Your task to perform on an android device: remove spam from my inbox in the gmail app Image 0: 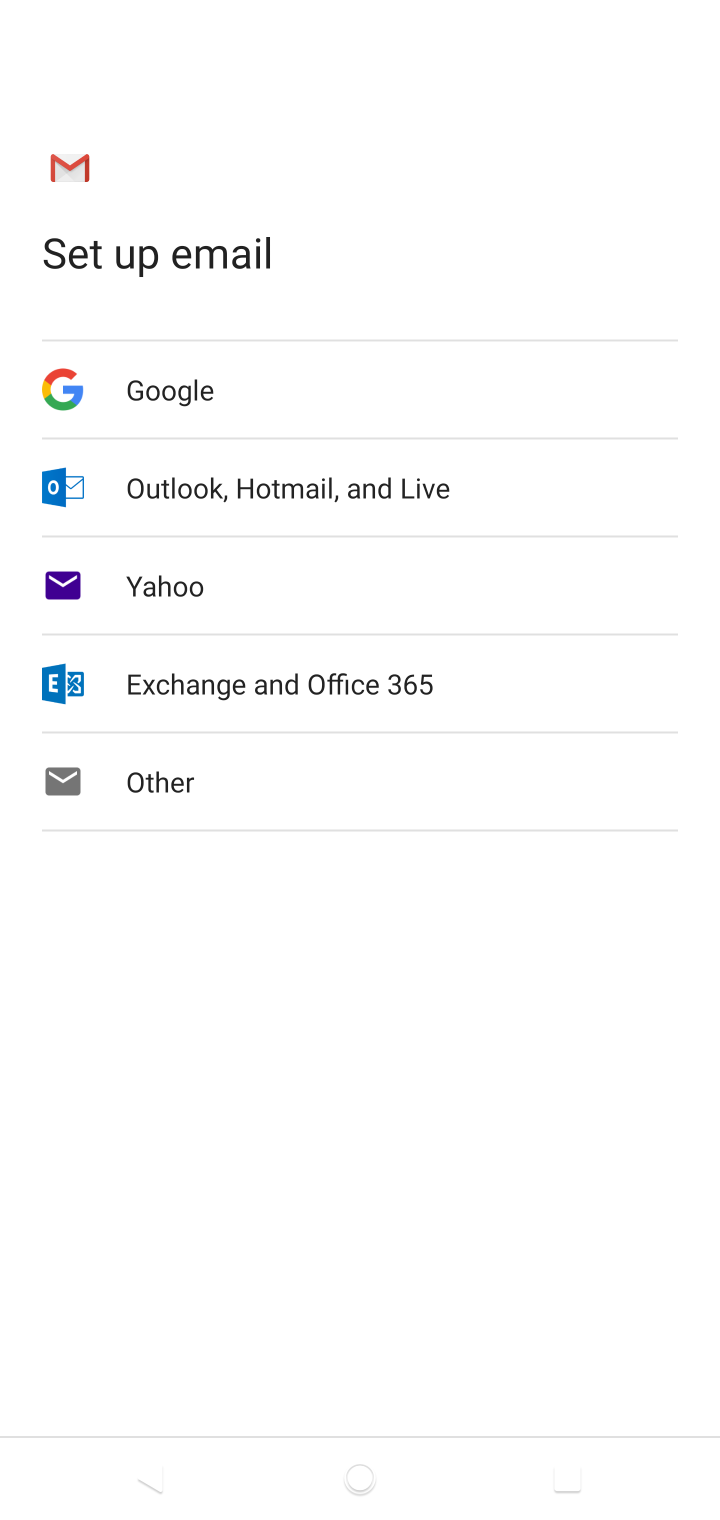
Step 0: click (36, 89)
Your task to perform on an android device: remove spam from my inbox in the gmail app Image 1: 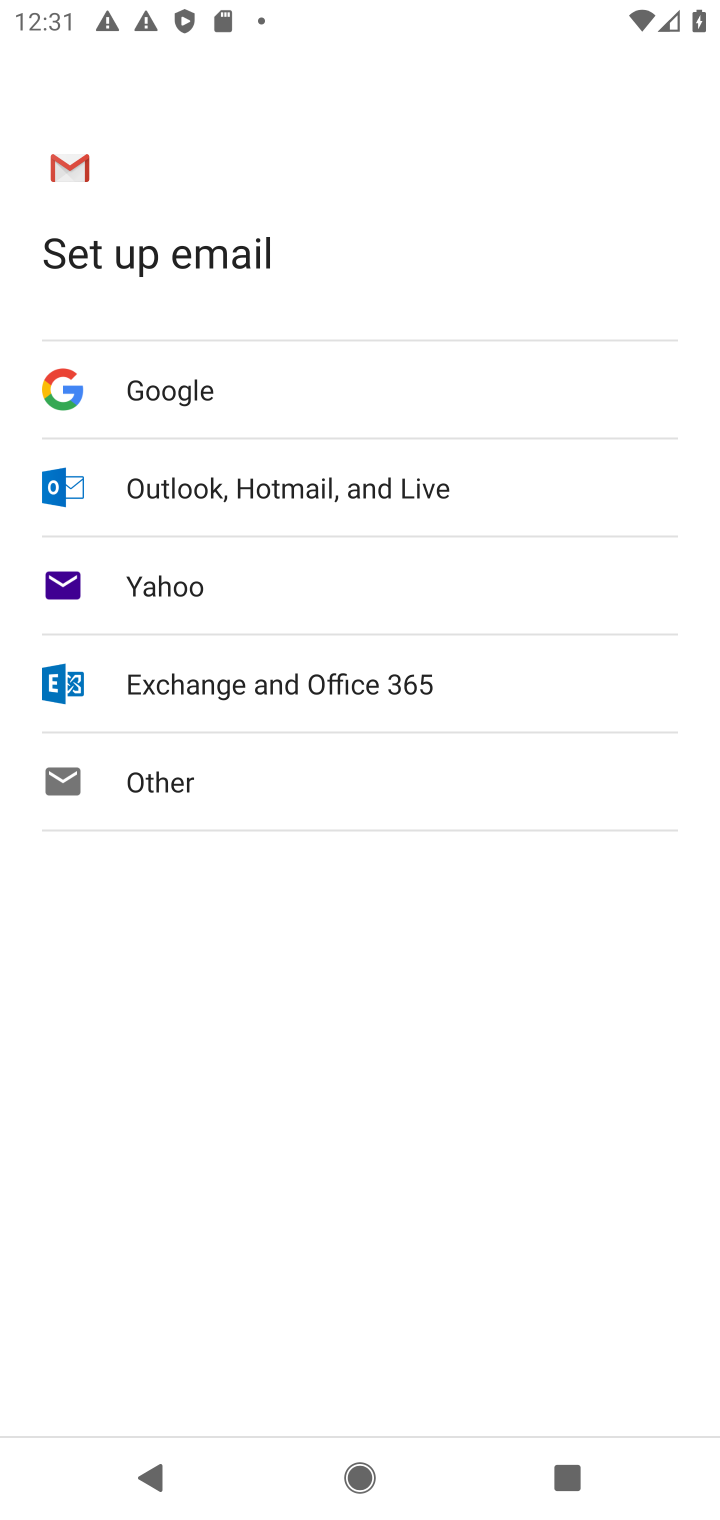
Step 1: press home button
Your task to perform on an android device: remove spam from my inbox in the gmail app Image 2: 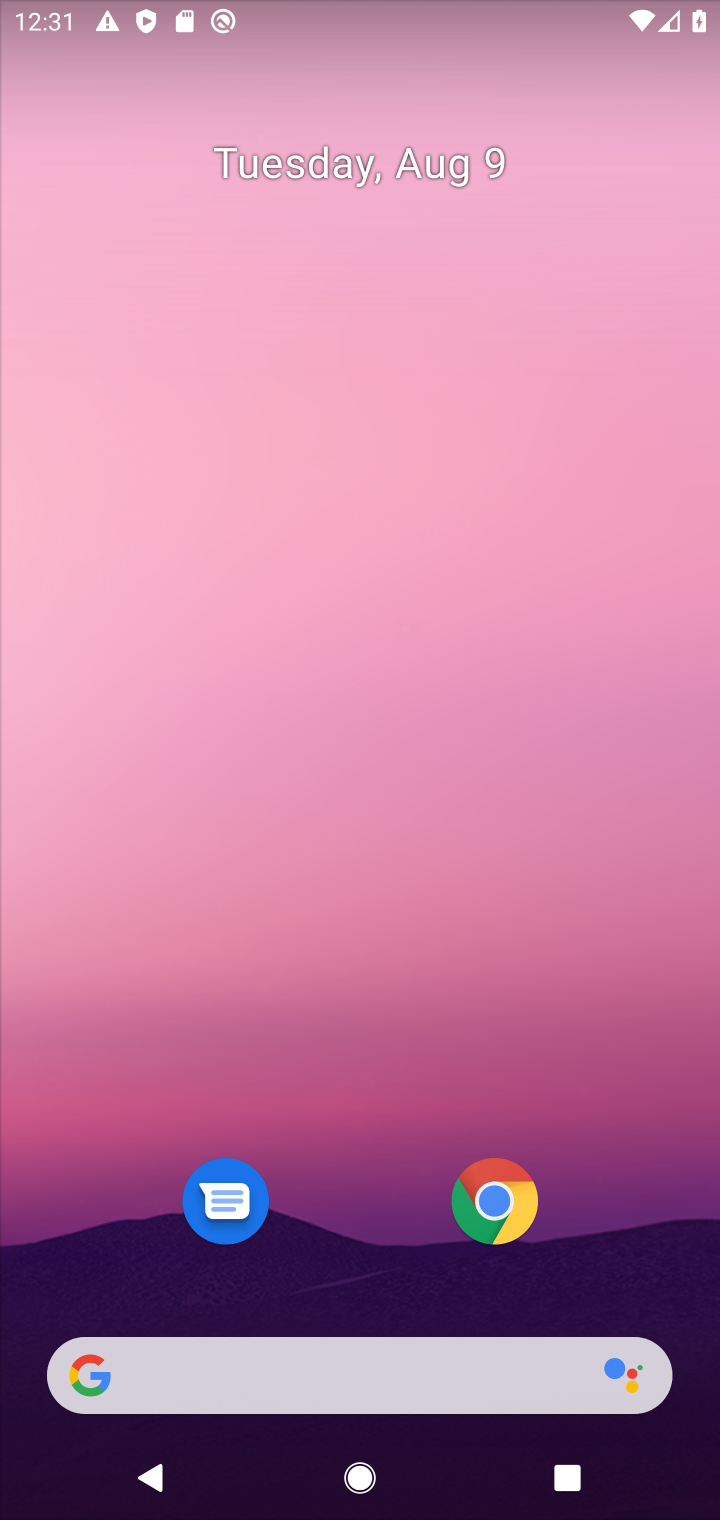
Step 2: drag from (279, 444) to (279, 234)
Your task to perform on an android device: remove spam from my inbox in the gmail app Image 3: 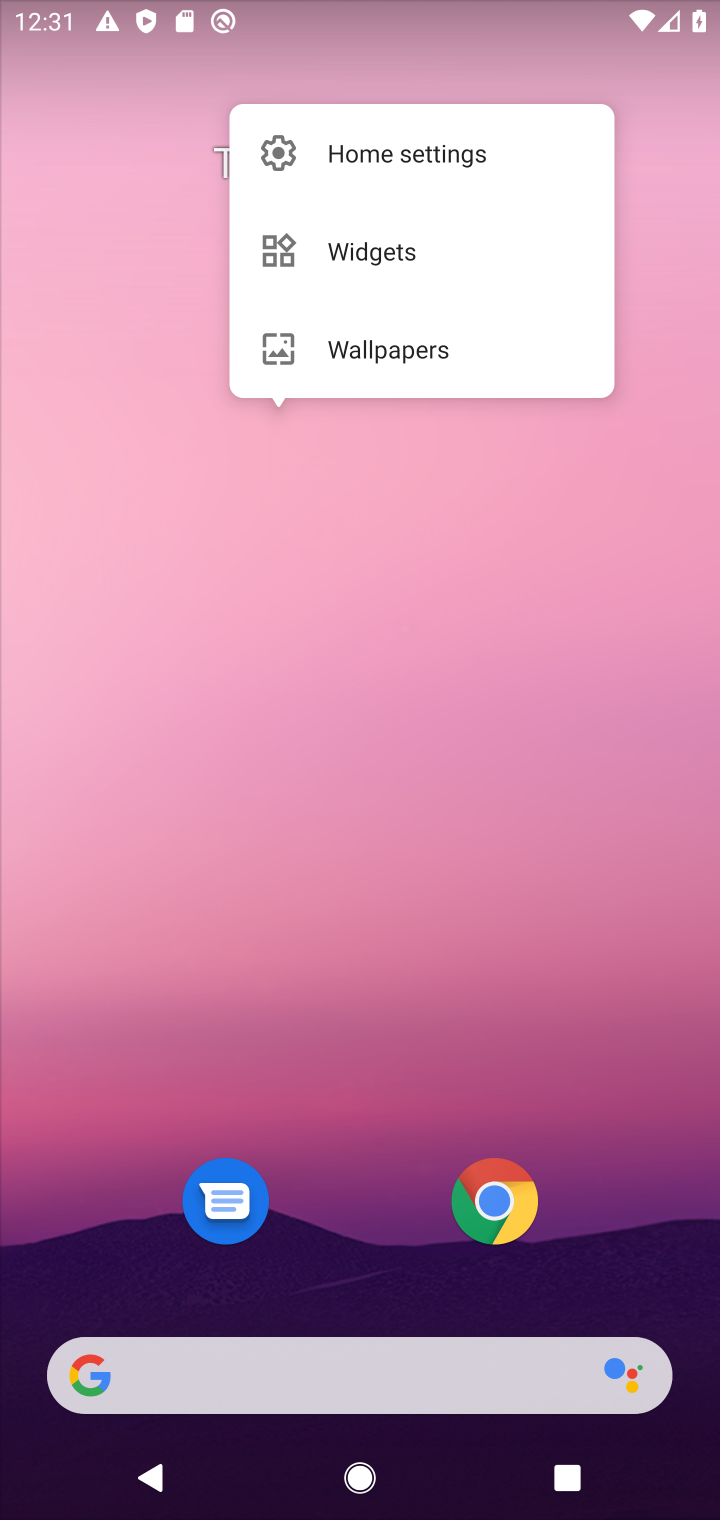
Step 3: drag from (373, 1255) to (367, 407)
Your task to perform on an android device: remove spam from my inbox in the gmail app Image 4: 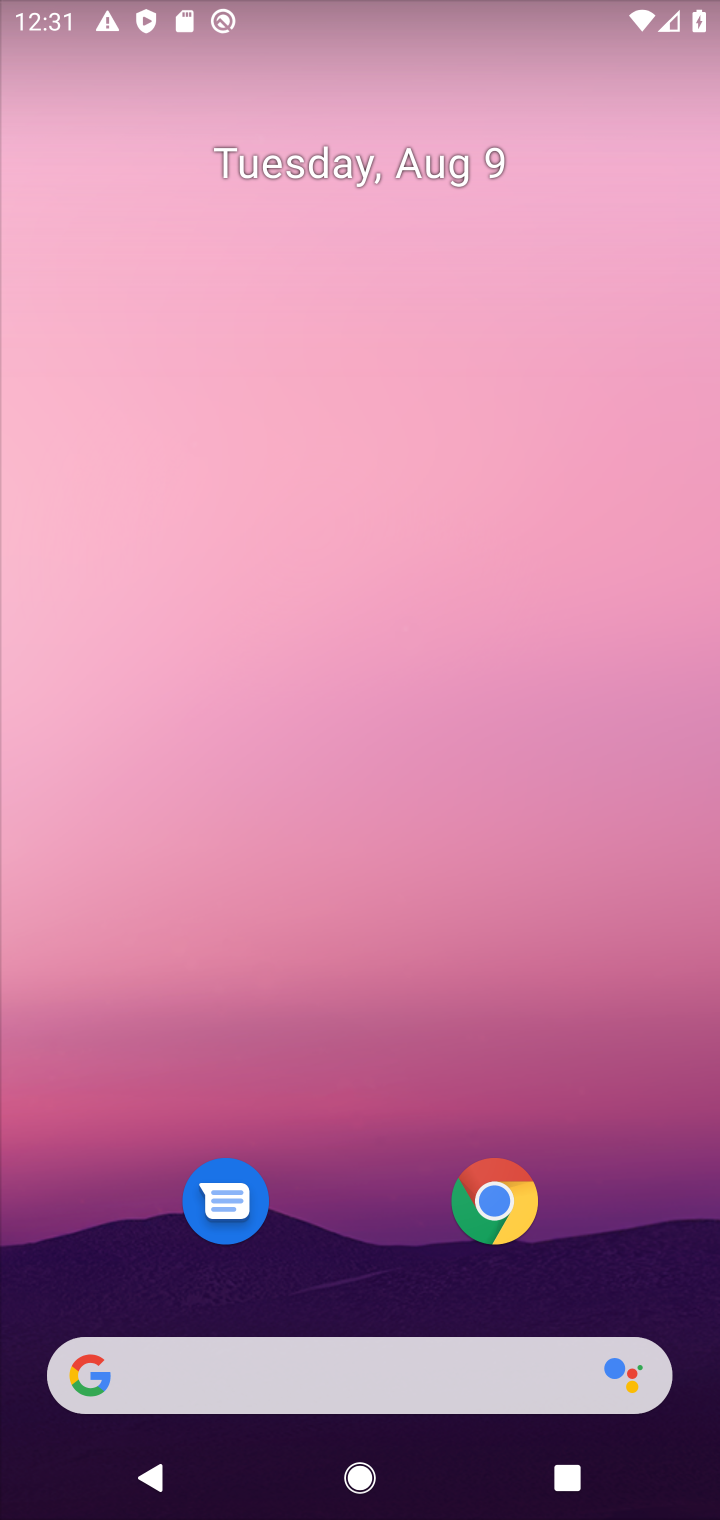
Step 4: drag from (368, 1300) to (406, 526)
Your task to perform on an android device: remove spam from my inbox in the gmail app Image 5: 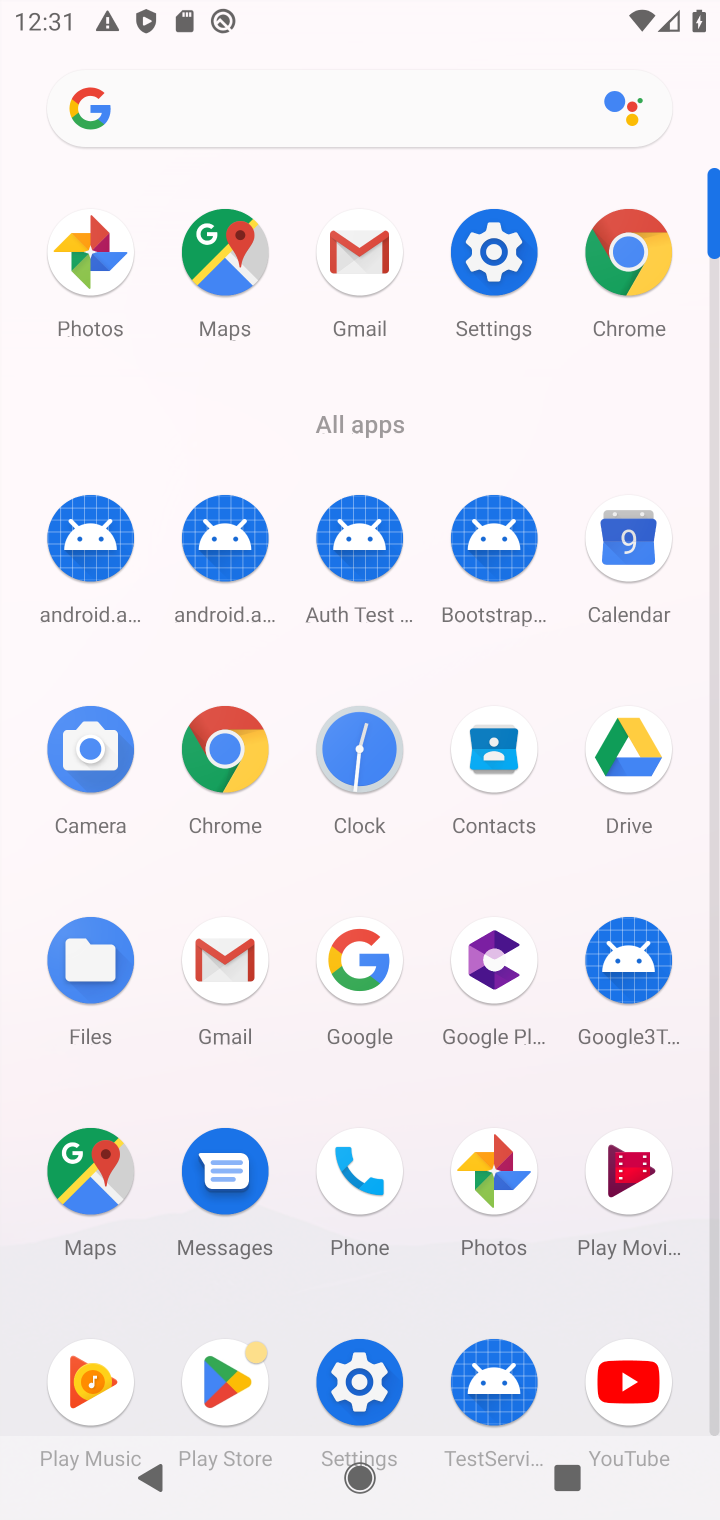
Step 5: click (234, 975)
Your task to perform on an android device: remove spam from my inbox in the gmail app Image 6: 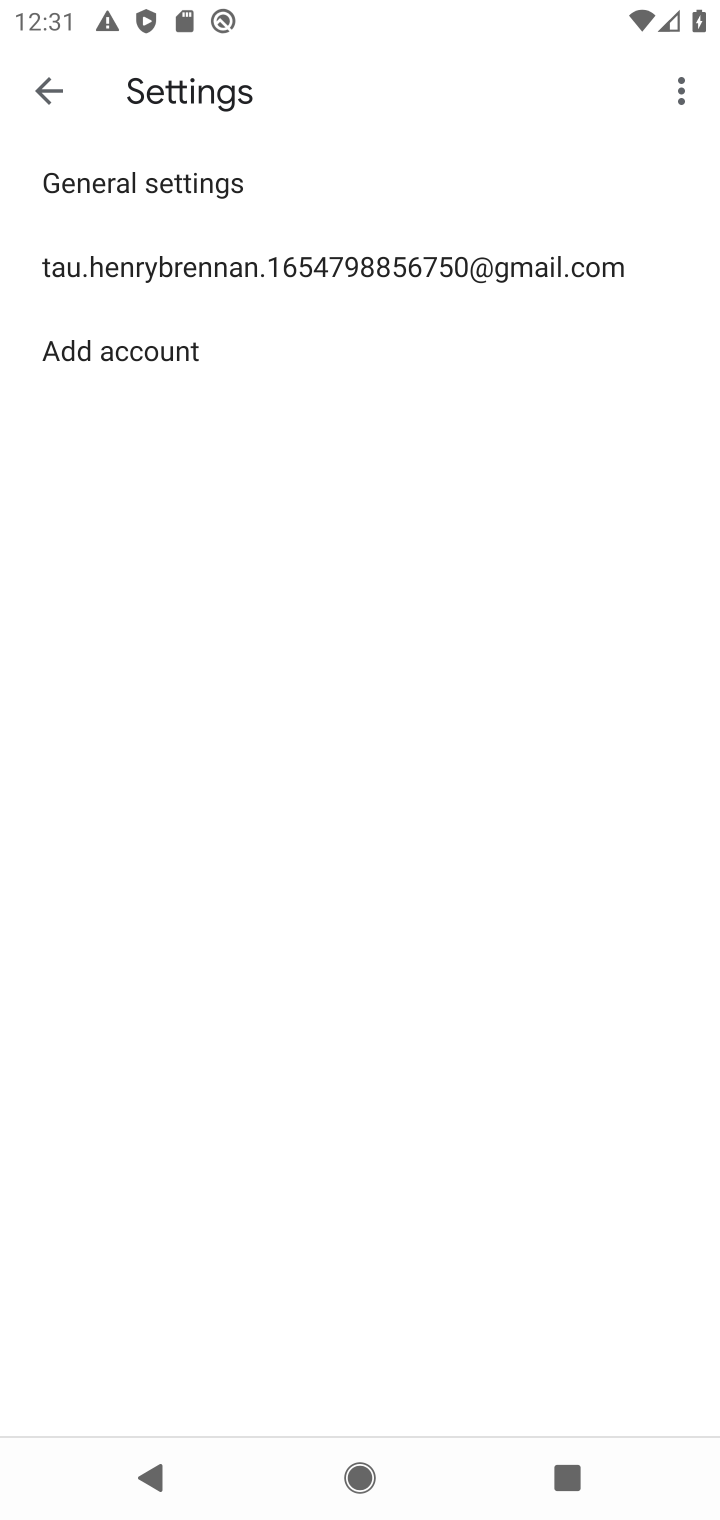
Step 6: click (43, 99)
Your task to perform on an android device: remove spam from my inbox in the gmail app Image 7: 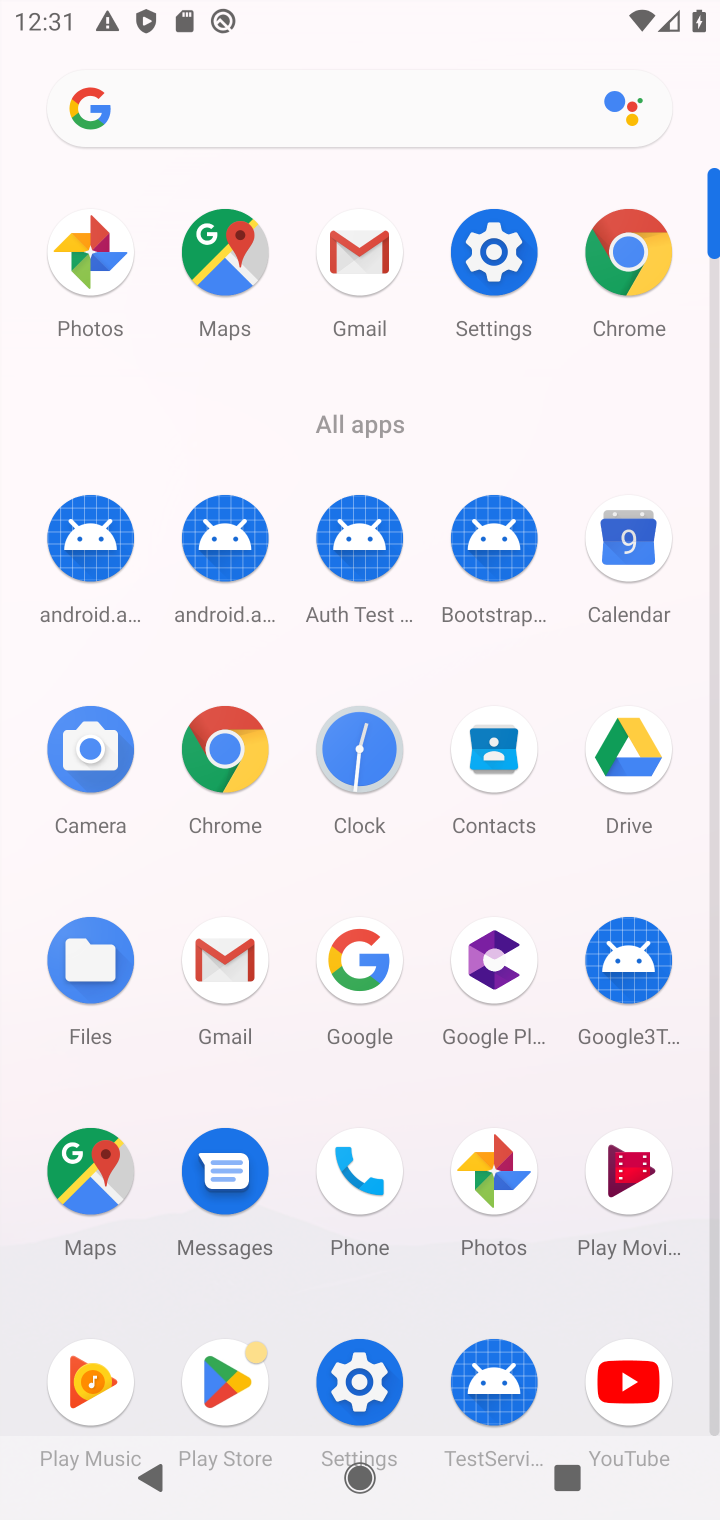
Step 7: click (206, 991)
Your task to perform on an android device: remove spam from my inbox in the gmail app Image 8: 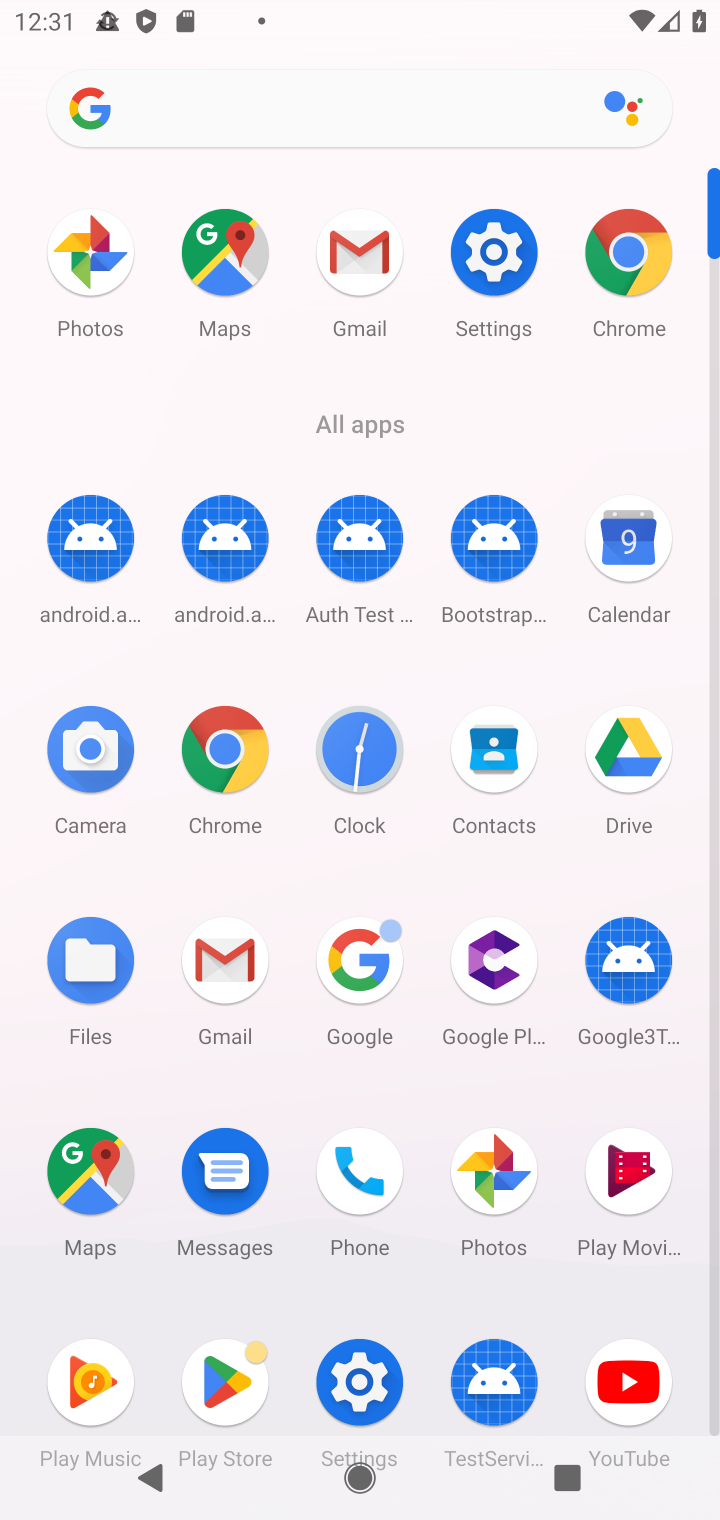
Step 8: click (217, 999)
Your task to perform on an android device: remove spam from my inbox in the gmail app Image 9: 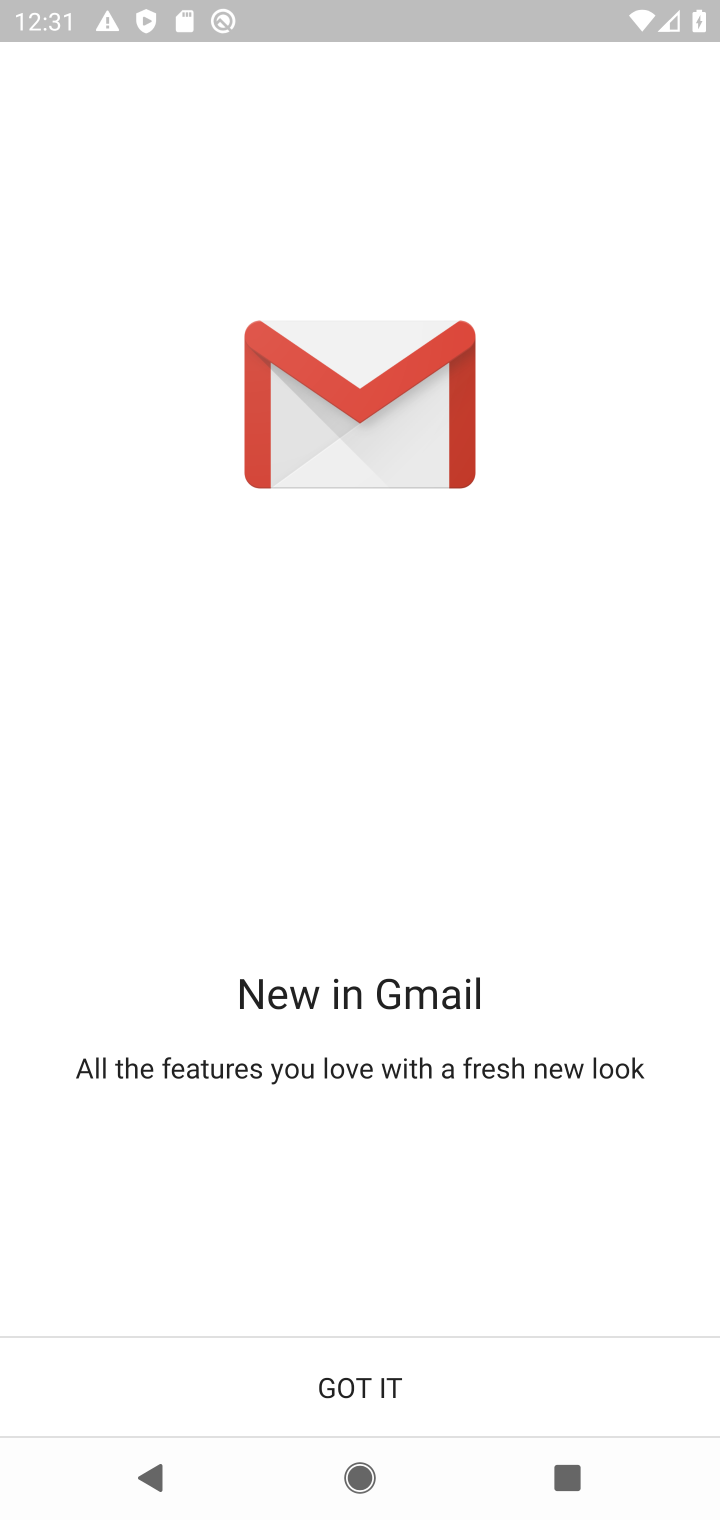
Step 9: click (442, 1375)
Your task to perform on an android device: remove spam from my inbox in the gmail app Image 10: 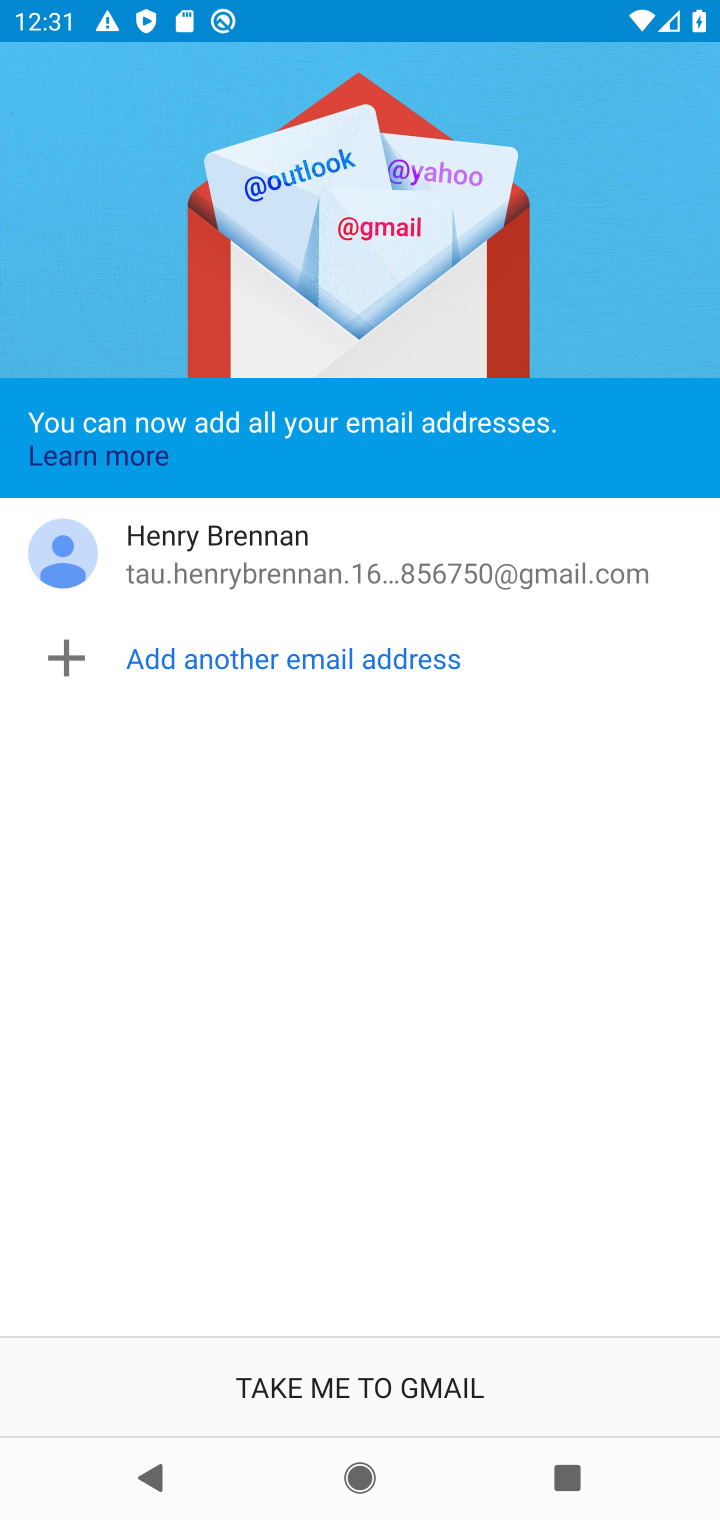
Step 10: click (433, 1377)
Your task to perform on an android device: remove spam from my inbox in the gmail app Image 11: 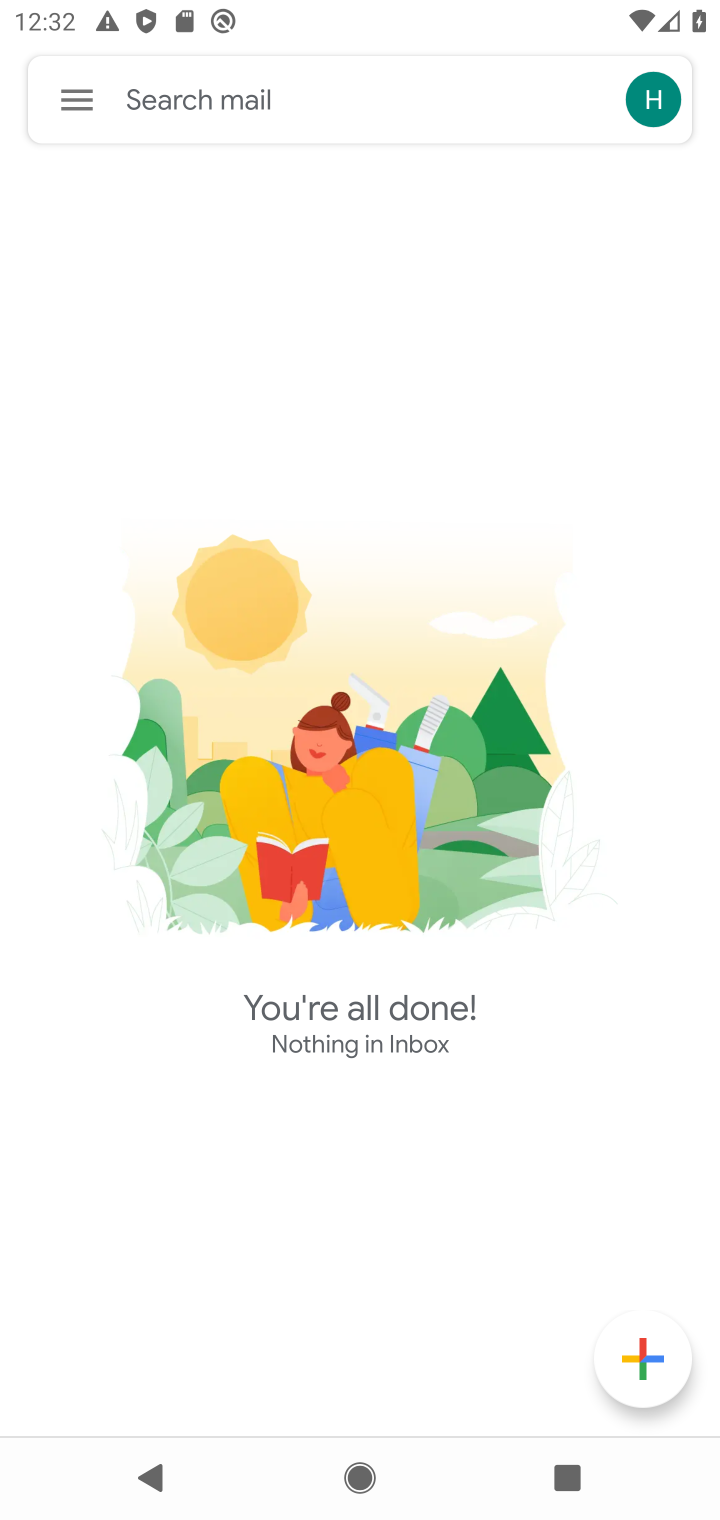
Step 11: click (65, 81)
Your task to perform on an android device: remove spam from my inbox in the gmail app Image 12: 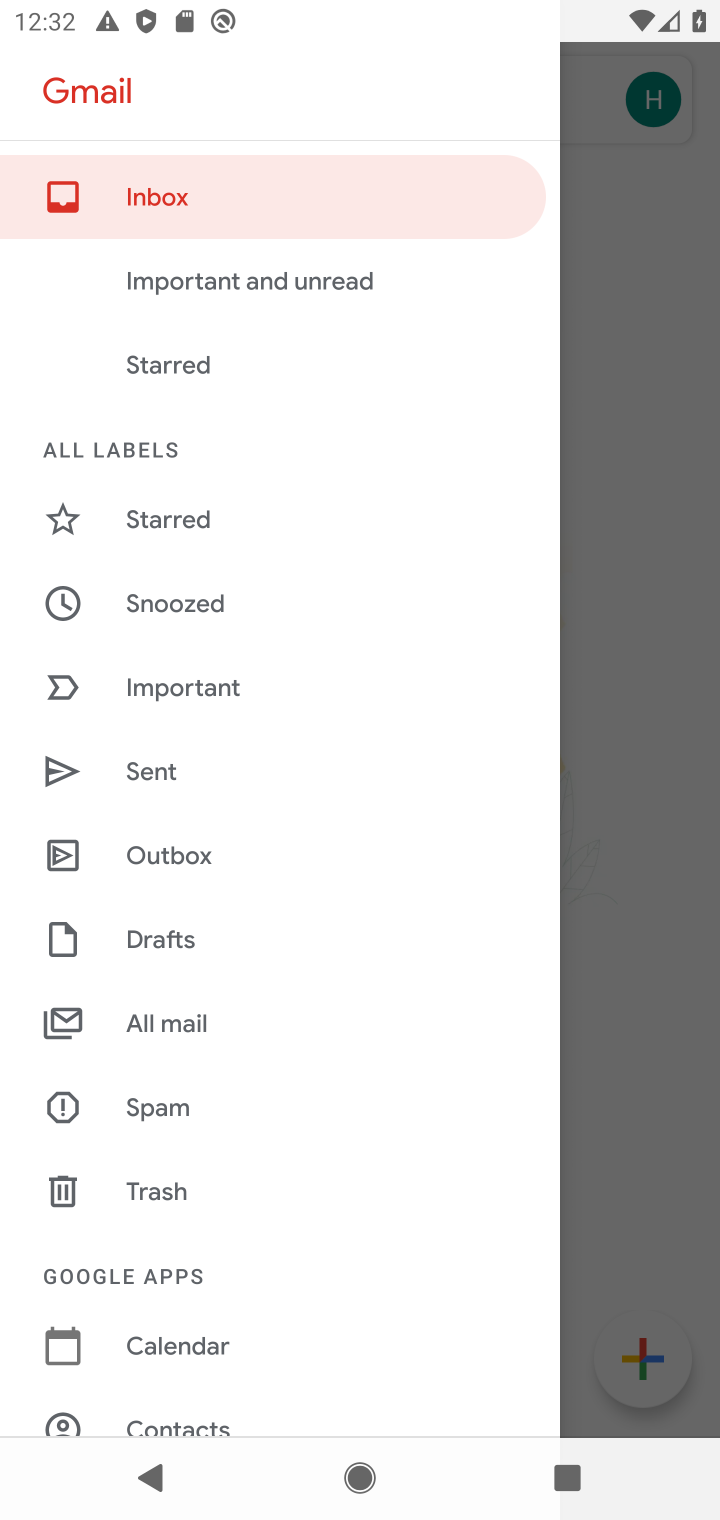
Step 12: click (159, 1115)
Your task to perform on an android device: remove spam from my inbox in the gmail app Image 13: 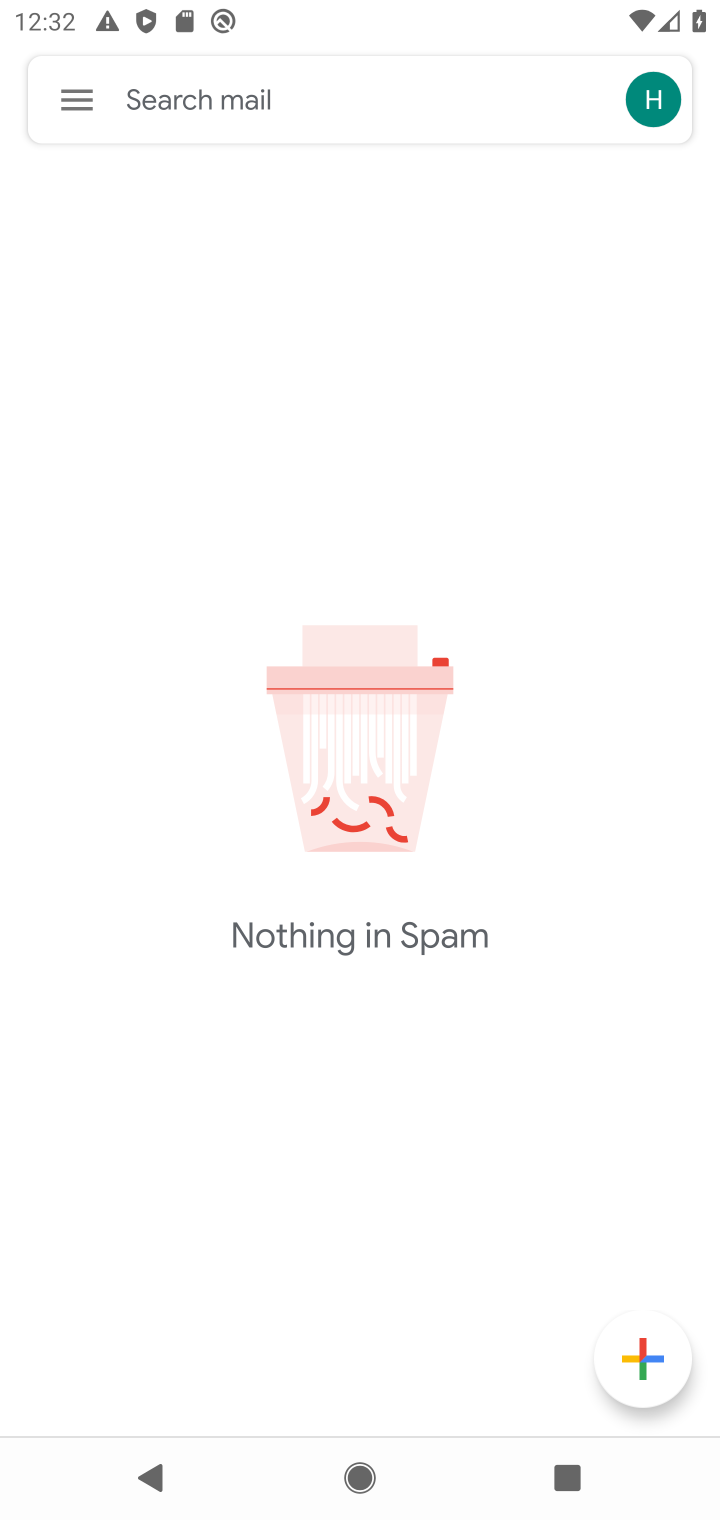
Step 13: task complete